Your task to perform on an android device: change alarm snooze length Image 0: 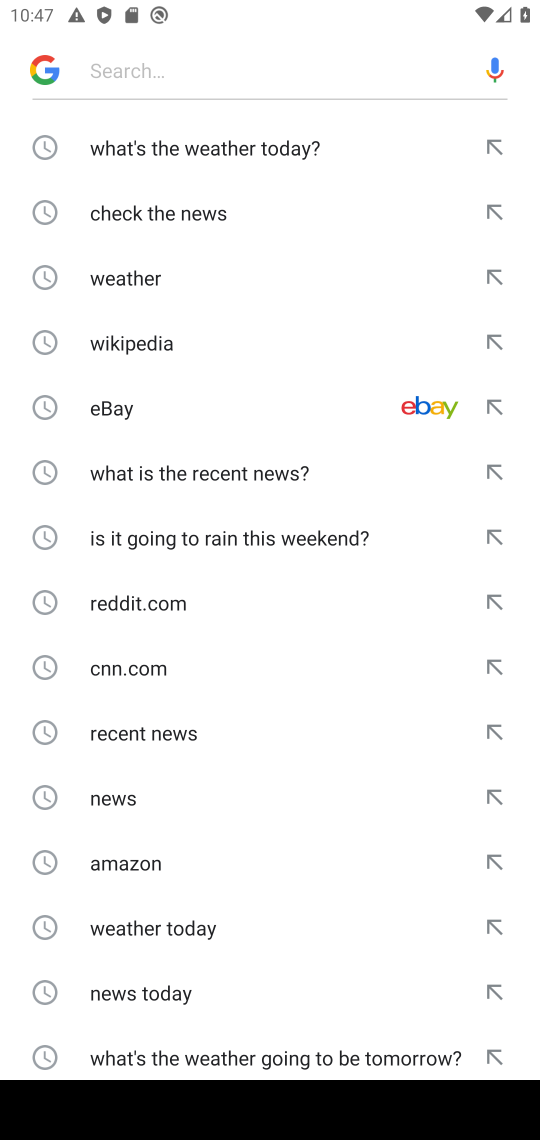
Step 0: press home button
Your task to perform on an android device: change alarm snooze length Image 1: 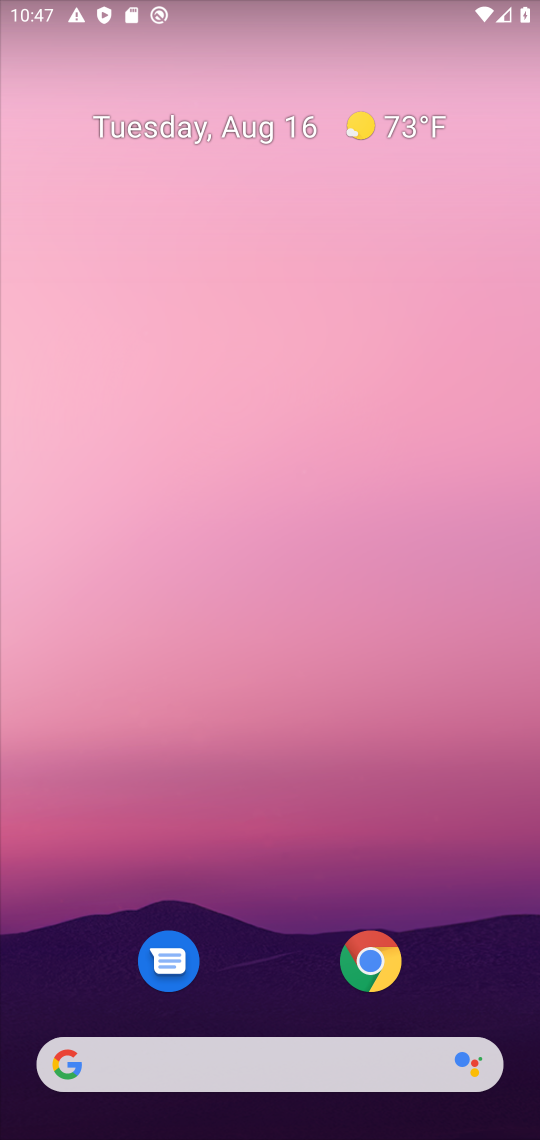
Step 1: task complete